Your task to perform on an android device: Open the web browser Image 0: 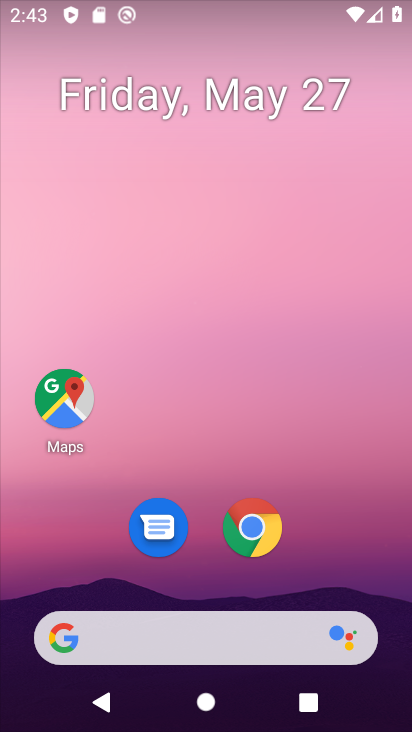
Step 0: click (269, 529)
Your task to perform on an android device: Open the web browser Image 1: 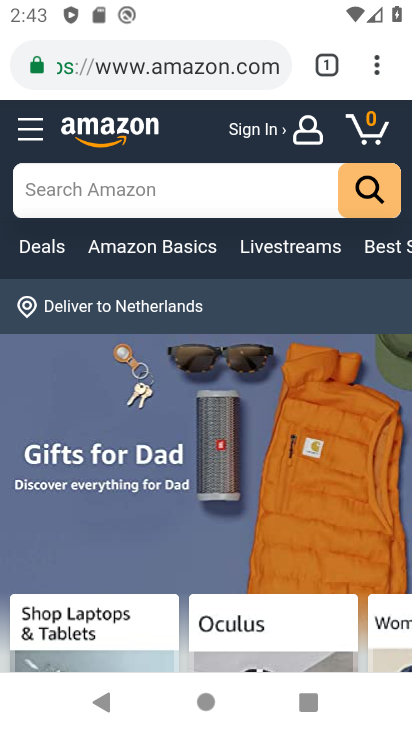
Step 1: task complete